Your task to perform on an android device: Open maps Image 0: 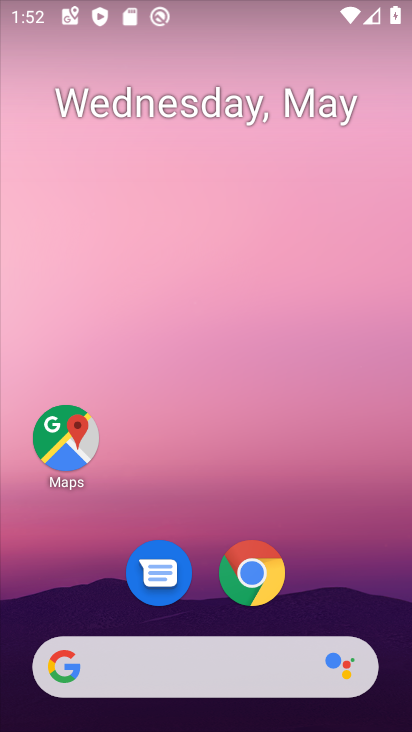
Step 0: click (69, 442)
Your task to perform on an android device: Open maps Image 1: 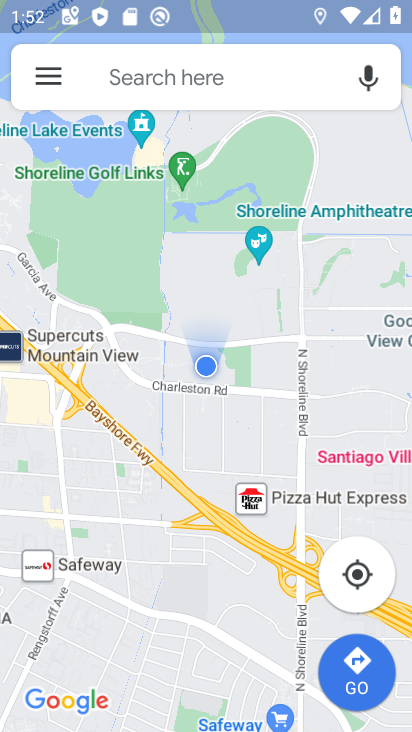
Step 1: task complete